Your task to perform on an android device: create a new album in the google photos Image 0: 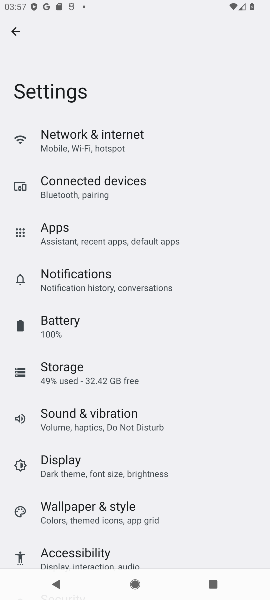
Step 0: press home button
Your task to perform on an android device: create a new album in the google photos Image 1: 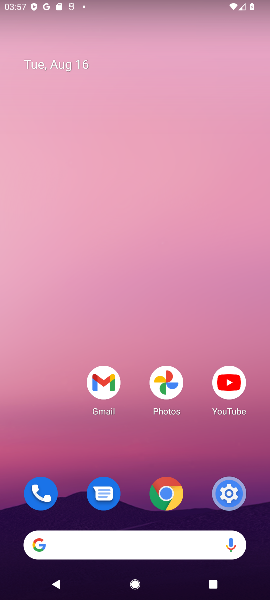
Step 1: drag from (65, 439) to (75, 68)
Your task to perform on an android device: create a new album in the google photos Image 2: 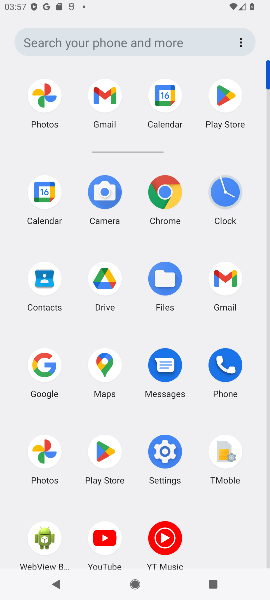
Step 2: click (46, 459)
Your task to perform on an android device: create a new album in the google photos Image 3: 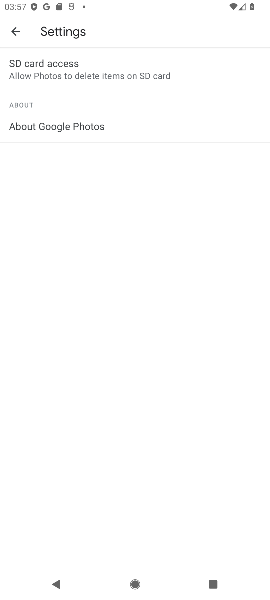
Step 3: press back button
Your task to perform on an android device: create a new album in the google photos Image 4: 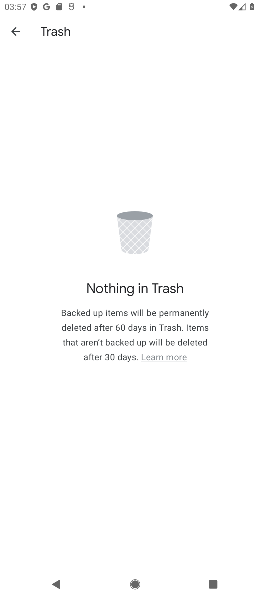
Step 4: press back button
Your task to perform on an android device: create a new album in the google photos Image 5: 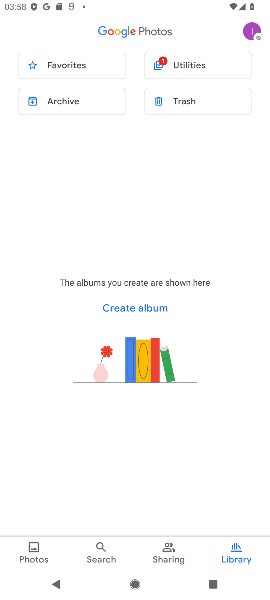
Step 5: click (133, 307)
Your task to perform on an android device: create a new album in the google photos Image 6: 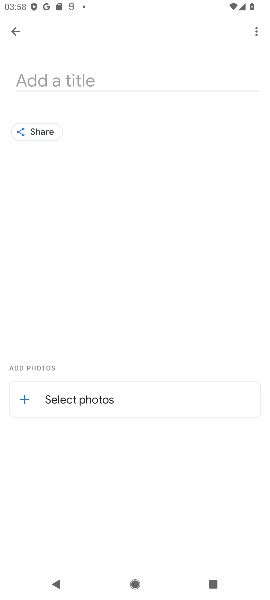
Step 6: click (94, 80)
Your task to perform on an android device: create a new album in the google photos Image 7: 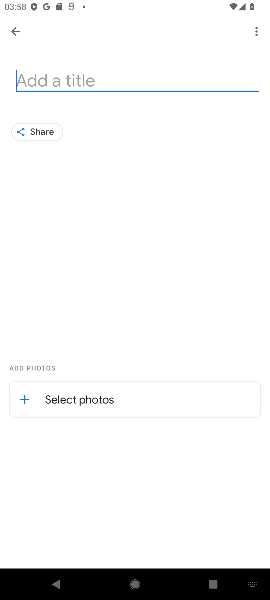
Step 7: type "fav"
Your task to perform on an android device: create a new album in the google photos Image 8: 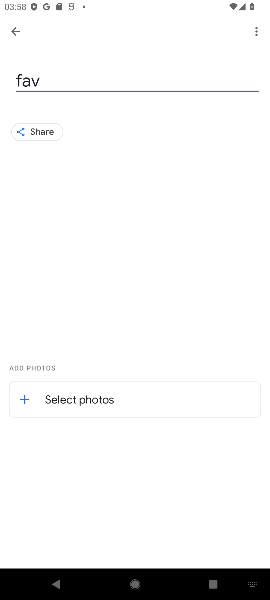
Step 8: click (29, 393)
Your task to perform on an android device: create a new album in the google photos Image 9: 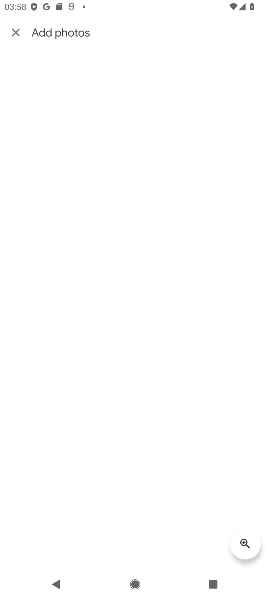
Step 9: task complete